Your task to perform on an android device: turn on priority inbox in the gmail app Image 0: 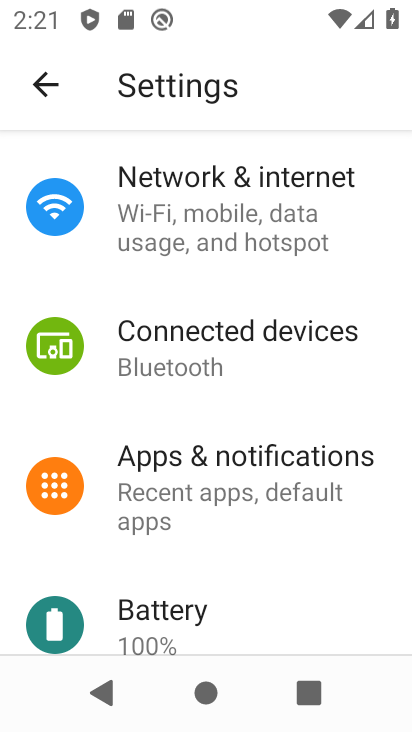
Step 0: press back button
Your task to perform on an android device: turn on priority inbox in the gmail app Image 1: 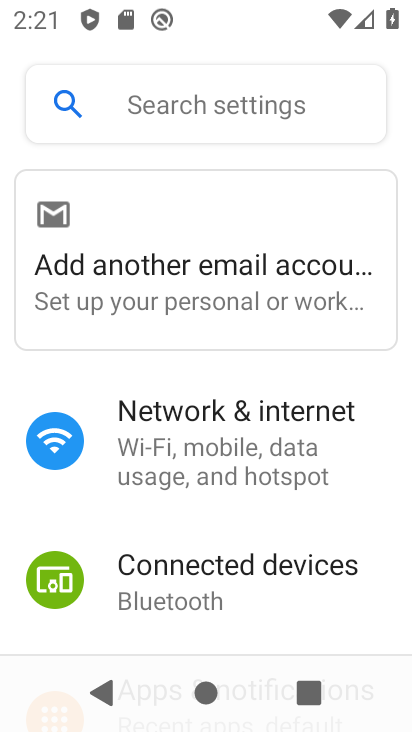
Step 1: press back button
Your task to perform on an android device: turn on priority inbox in the gmail app Image 2: 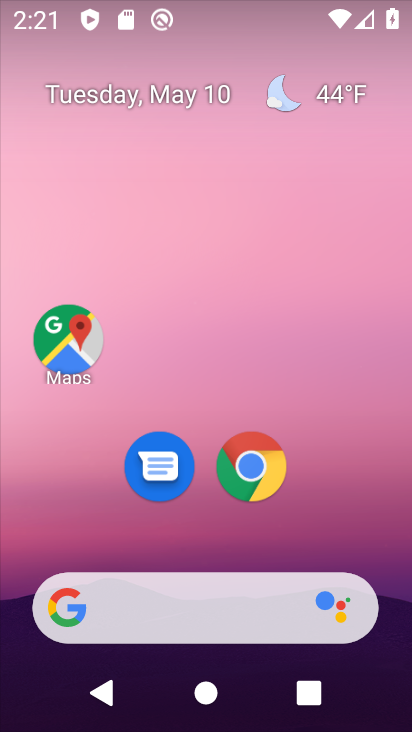
Step 2: drag from (333, 519) to (260, 41)
Your task to perform on an android device: turn on priority inbox in the gmail app Image 3: 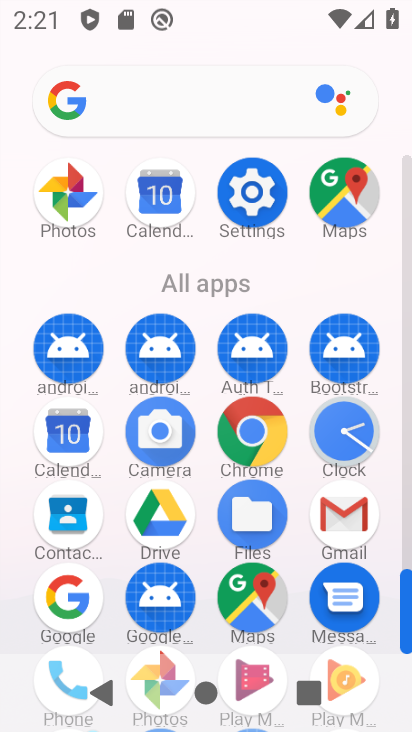
Step 3: click (339, 518)
Your task to perform on an android device: turn on priority inbox in the gmail app Image 4: 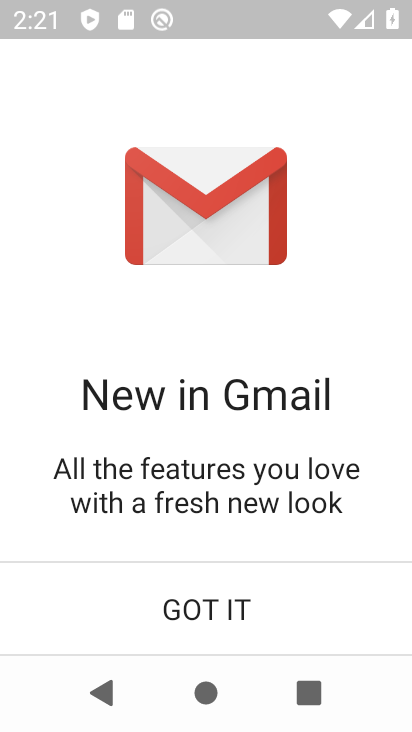
Step 4: click (213, 604)
Your task to perform on an android device: turn on priority inbox in the gmail app Image 5: 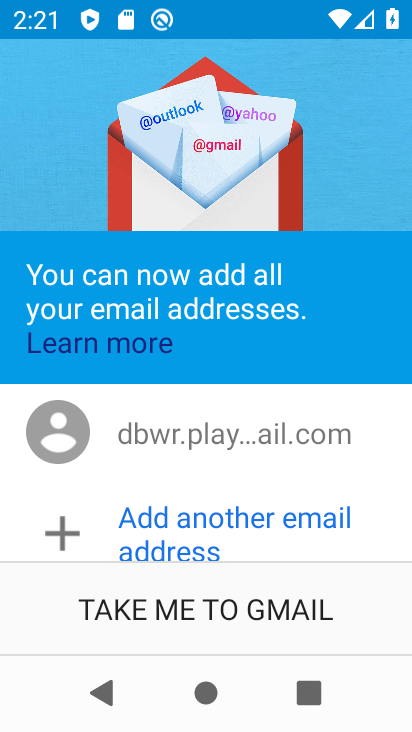
Step 5: click (222, 609)
Your task to perform on an android device: turn on priority inbox in the gmail app Image 6: 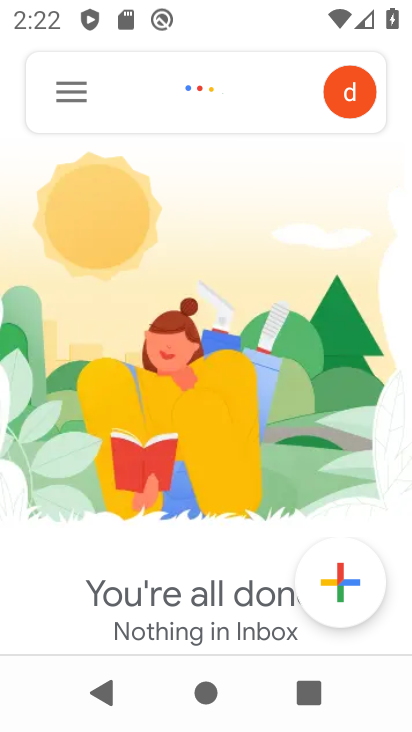
Step 6: click (67, 100)
Your task to perform on an android device: turn on priority inbox in the gmail app Image 7: 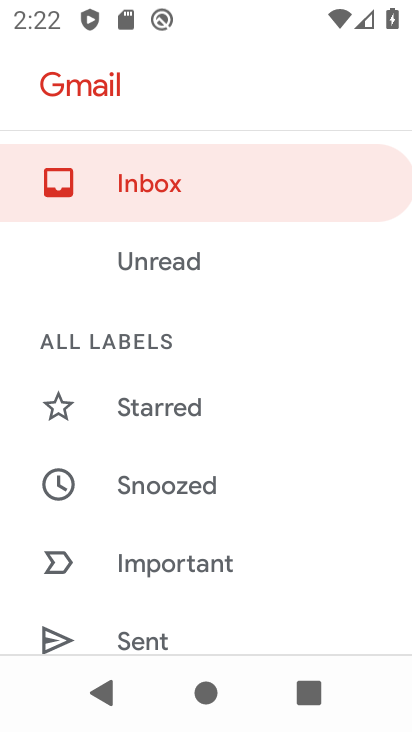
Step 7: drag from (151, 444) to (193, 293)
Your task to perform on an android device: turn on priority inbox in the gmail app Image 8: 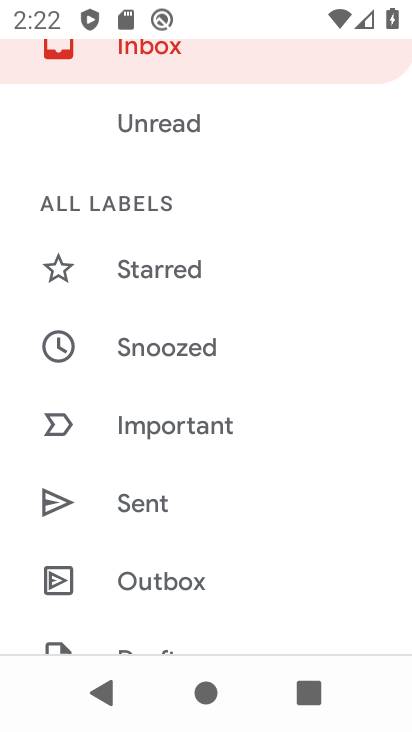
Step 8: drag from (155, 479) to (219, 359)
Your task to perform on an android device: turn on priority inbox in the gmail app Image 9: 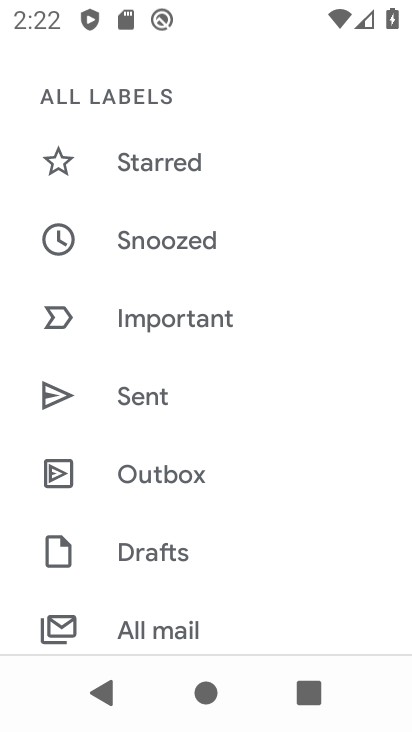
Step 9: drag from (161, 508) to (224, 369)
Your task to perform on an android device: turn on priority inbox in the gmail app Image 10: 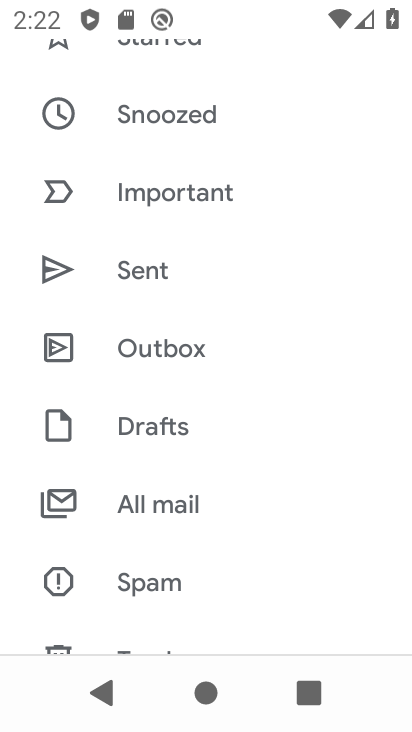
Step 10: drag from (145, 533) to (198, 373)
Your task to perform on an android device: turn on priority inbox in the gmail app Image 11: 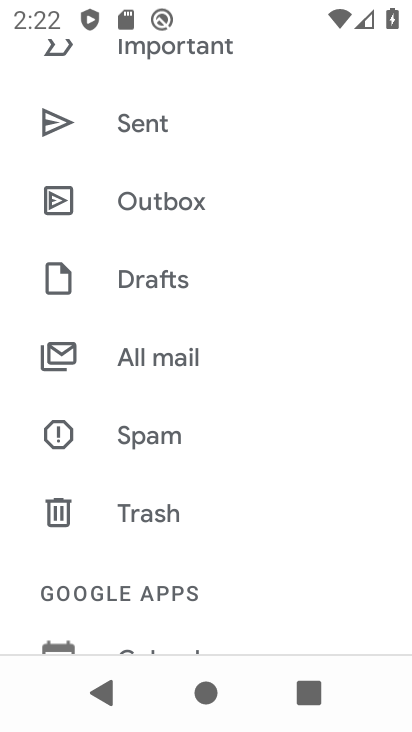
Step 11: drag from (163, 497) to (190, 380)
Your task to perform on an android device: turn on priority inbox in the gmail app Image 12: 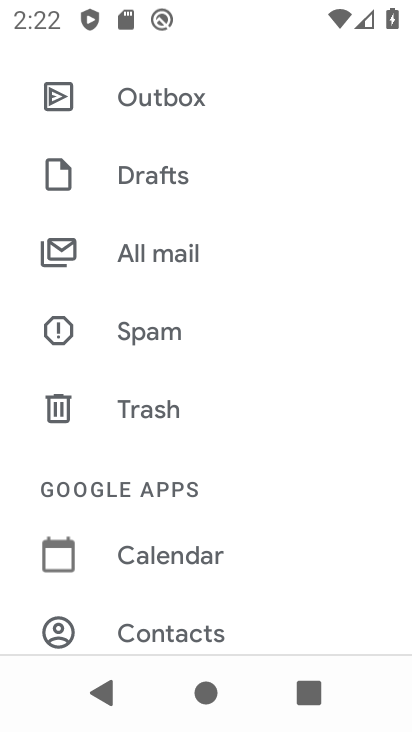
Step 12: drag from (141, 539) to (184, 427)
Your task to perform on an android device: turn on priority inbox in the gmail app Image 13: 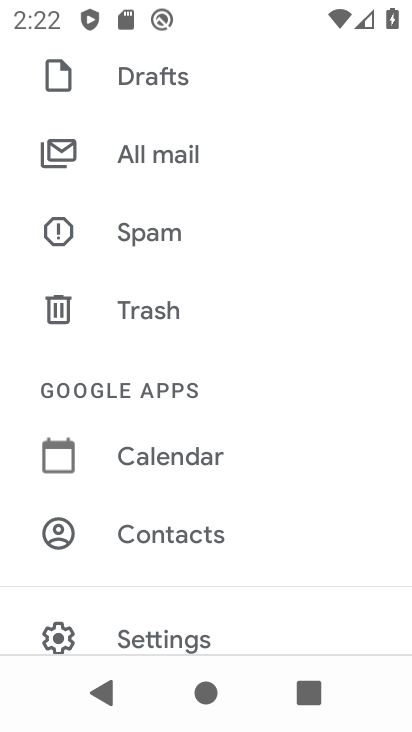
Step 13: drag from (245, 535) to (275, 414)
Your task to perform on an android device: turn on priority inbox in the gmail app Image 14: 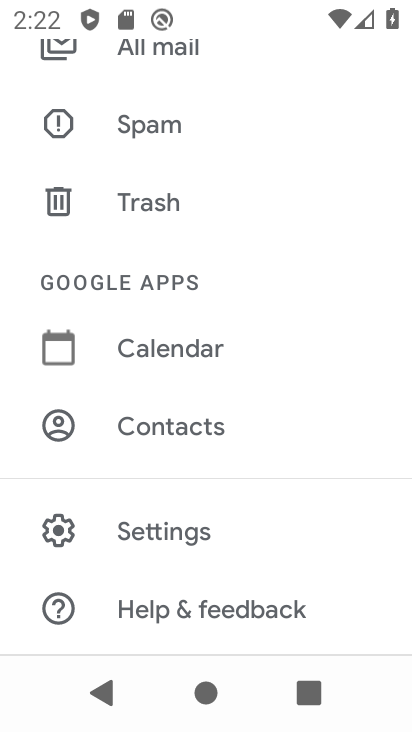
Step 14: click (161, 526)
Your task to perform on an android device: turn on priority inbox in the gmail app Image 15: 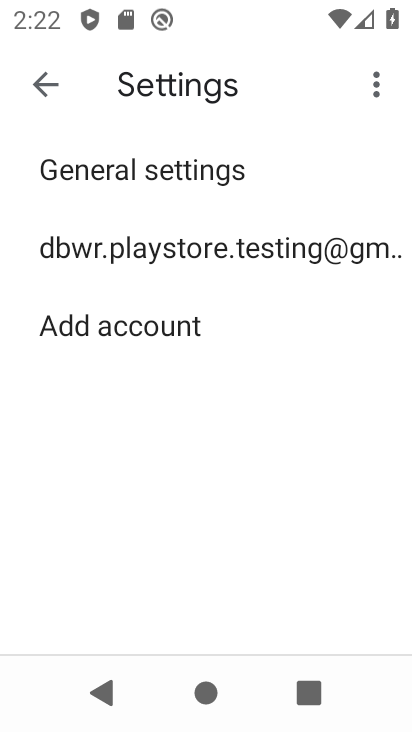
Step 15: click (220, 254)
Your task to perform on an android device: turn on priority inbox in the gmail app Image 16: 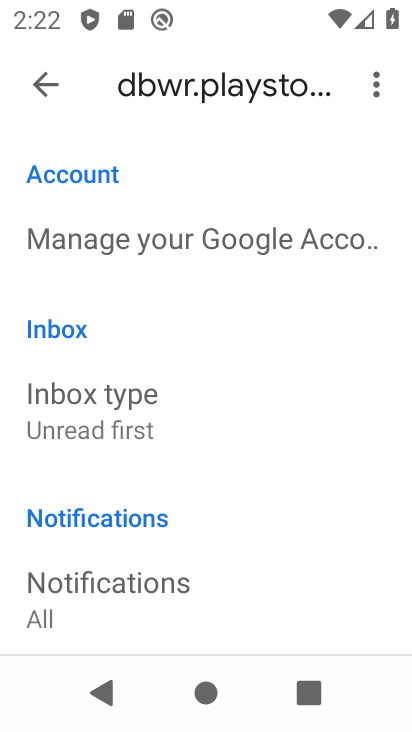
Step 16: click (136, 398)
Your task to perform on an android device: turn on priority inbox in the gmail app Image 17: 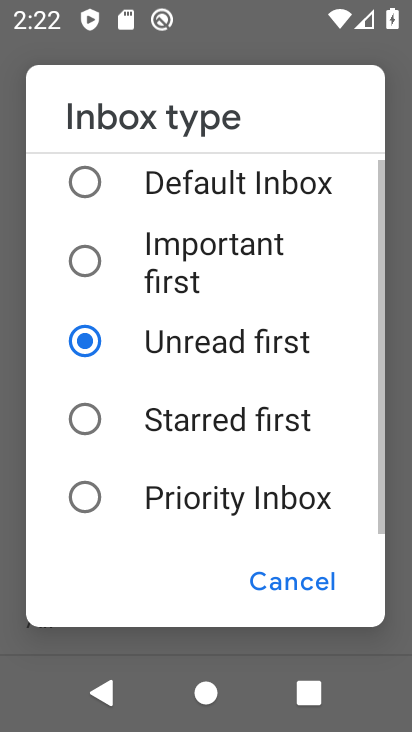
Step 17: click (80, 496)
Your task to perform on an android device: turn on priority inbox in the gmail app Image 18: 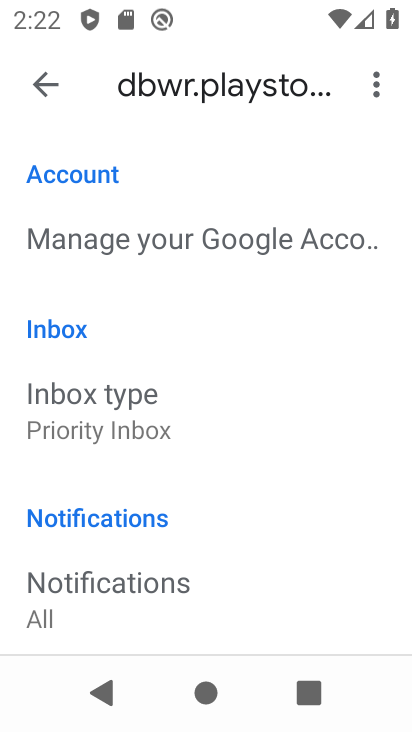
Step 18: task complete